Your task to perform on an android device: delete the emails in spam in the gmail app Image 0: 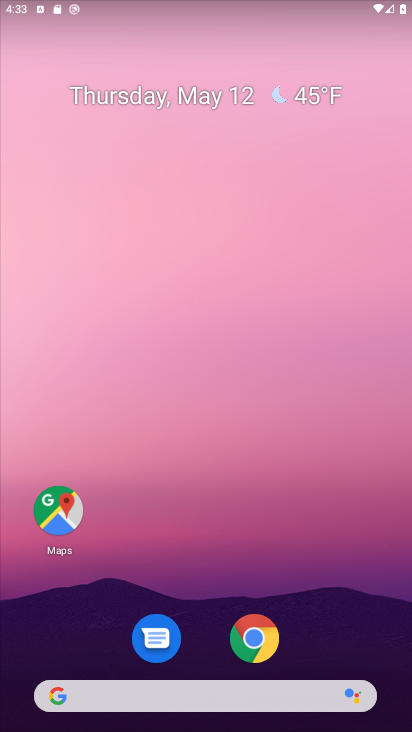
Step 0: drag from (333, 610) to (135, 46)
Your task to perform on an android device: delete the emails in spam in the gmail app Image 1: 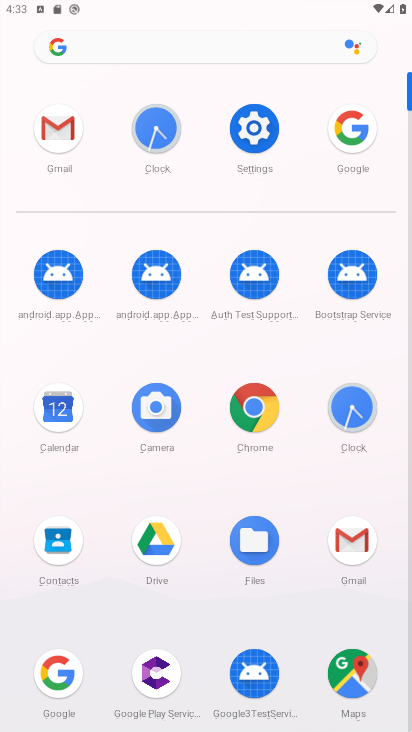
Step 1: click (62, 139)
Your task to perform on an android device: delete the emails in spam in the gmail app Image 2: 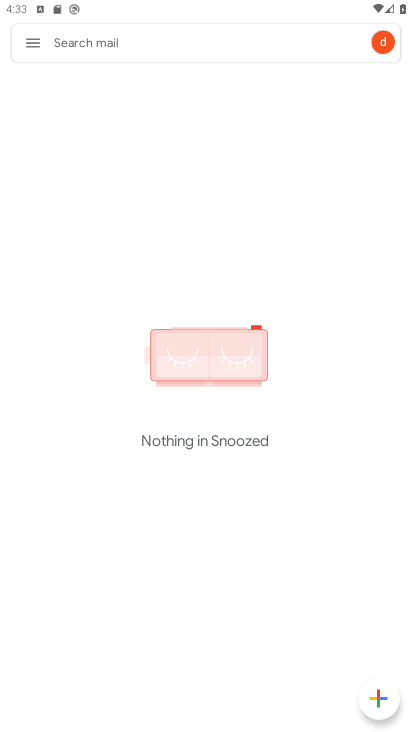
Step 2: click (29, 36)
Your task to perform on an android device: delete the emails in spam in the gmail app Image 3: 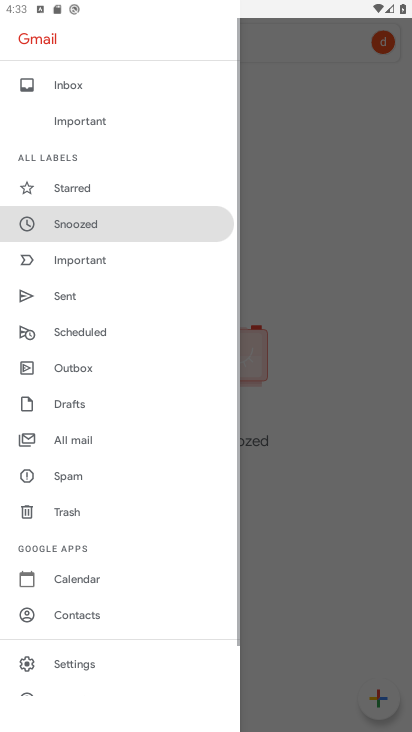
Step 3: click (75, 476)
Your task to perform on an android device: delete the emails in spam in the gmail app Image 4: 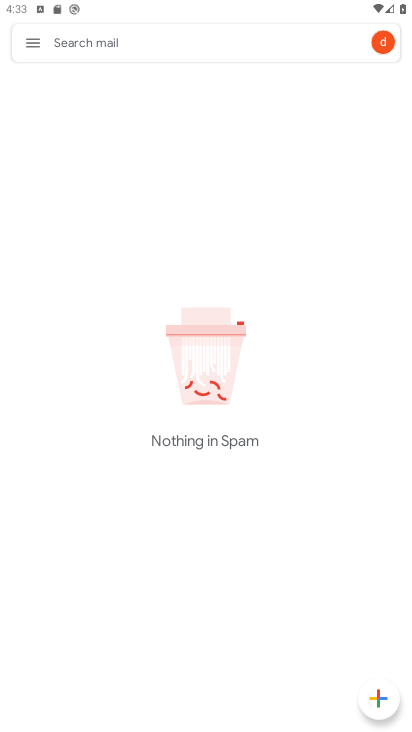
Step 4: task complete